Your task to perform on an android device: What's on my calendar tomorrow? Image 0: 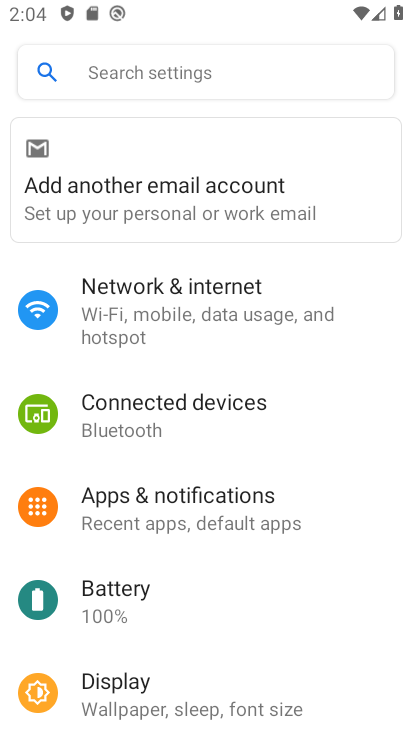
Step 0: press back button
Your task to perform on an android device: What's on my calendar tomorrow? Image 1: 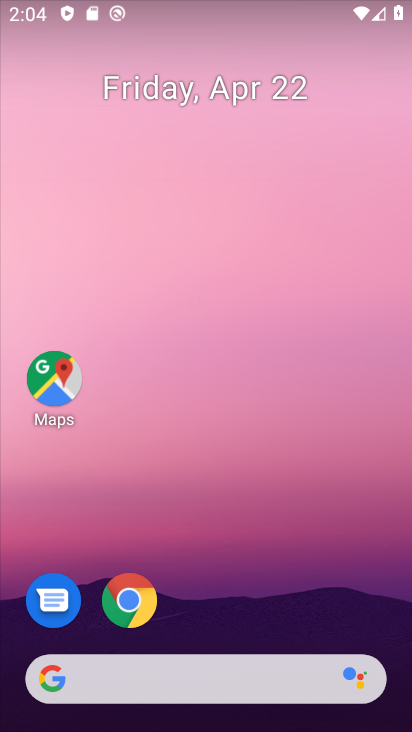
Step 1: drag from (196, 214) to (410, 170)
Your task to perform on an android device: What's on my calendar tomorrow? Image 2: 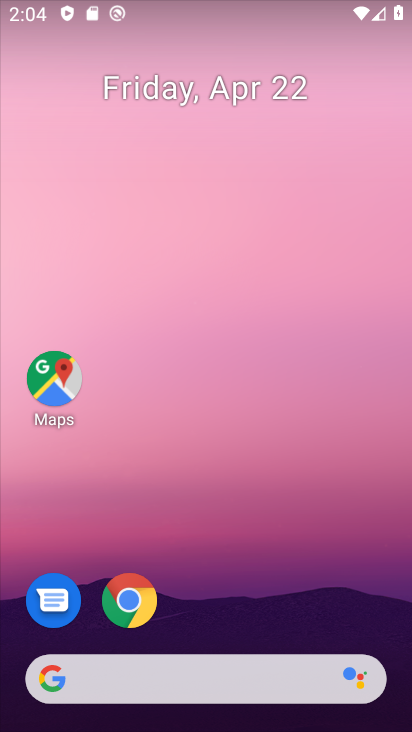
Step 2: drag from (0, 301) to (411, 210)
Your task to perform on an android device: What's on my calendar tomorrow? Image 3: 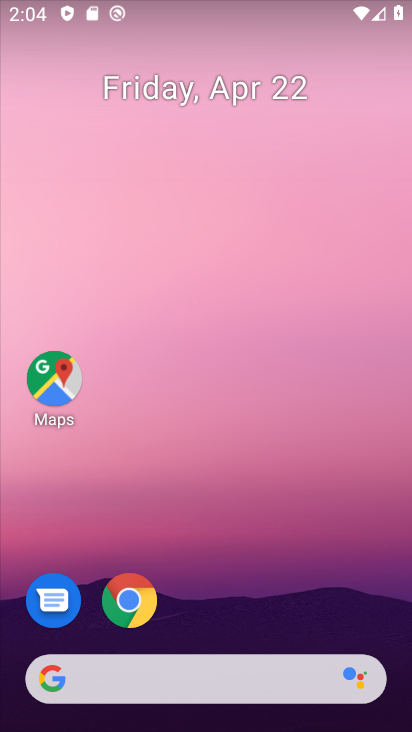
Step 3: drag from (28, 472) to (377, 416)
Your task to perform on an android device: What's on my calendar tomorrow? Image 4: 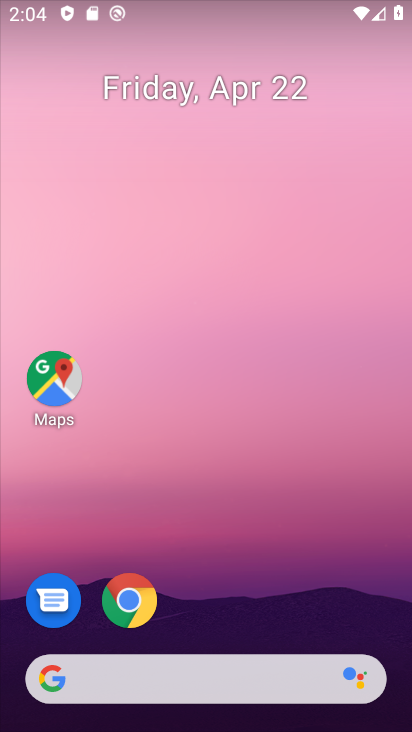
Step 4: drag from (0, 279) to (371, 361)
Your task to perform on an android device: What's on my calendar tomorrow? Image 5: 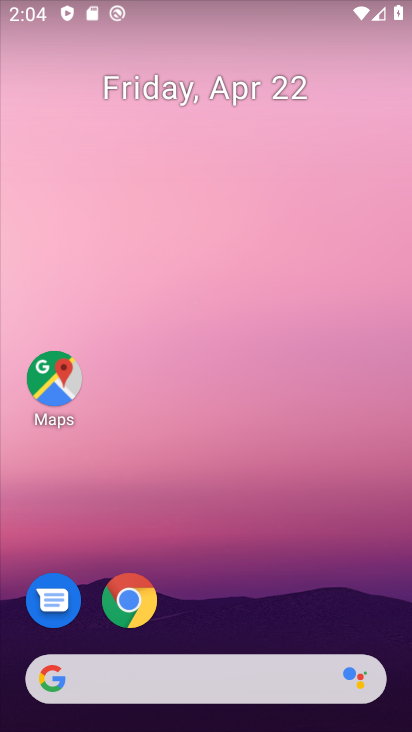
Step 5: drag from (204, 533) to (311, 141)
Your task to perform on an android device: What's on my calendar tomorrow? Image 6: 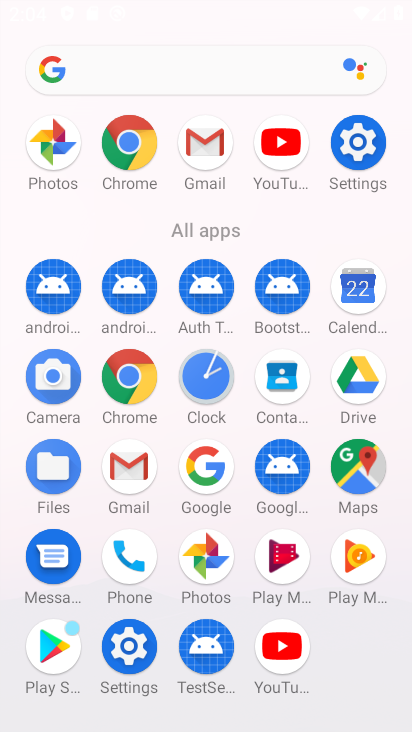
Step 6: click (359, 289)
Your task to perform on an android device: What's on my calendar tomorrow? Image 7: 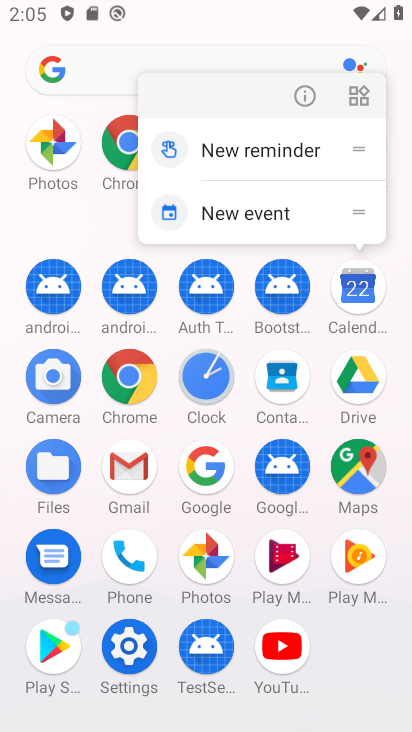
Step 7: click (365, 294)
Your task to perform on an android device: What's on my calendar tomorrow? Image 8: 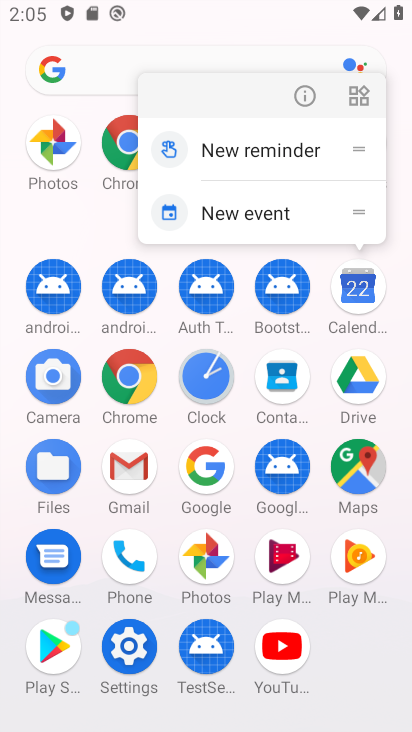
Step 8: click (362, 301)
Your task to perform on an android device: What's on my calendar tomorrow? Image 9: 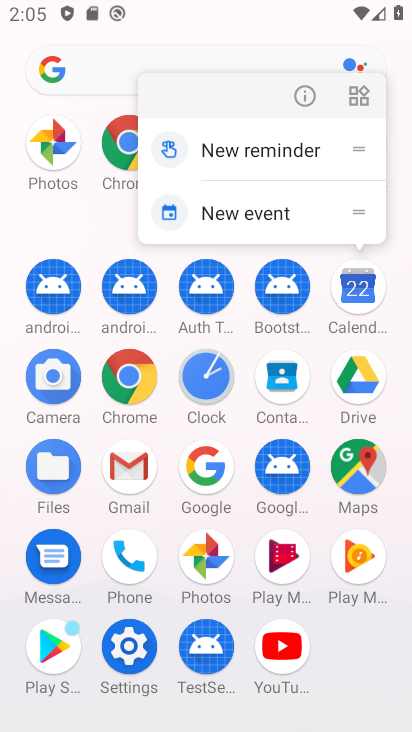
Step 9: click (366, 287)
Your task to perform on an android device: What's on my calendar tomorrow? Image 10: 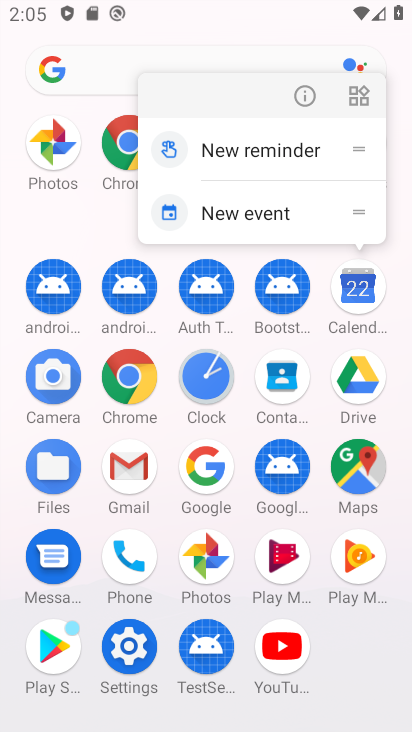
Step 10: click (361, 292)
Your task to perform on an android device: What's on my calendar tomorrow? Image 11: 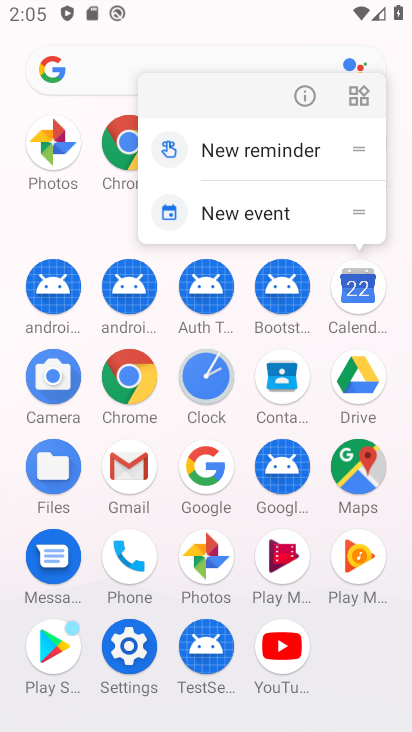
Step 11: click (370, 286)
Your task to perform on an android device: What's on my calendar tomorrow? Image 12: 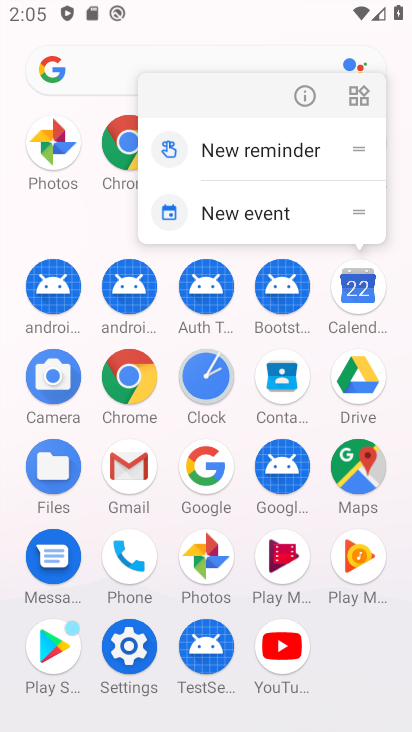
Step 12: click (356, 276)
Your task to perform on an android device: What's on my calendar tomorrow? Image 13: 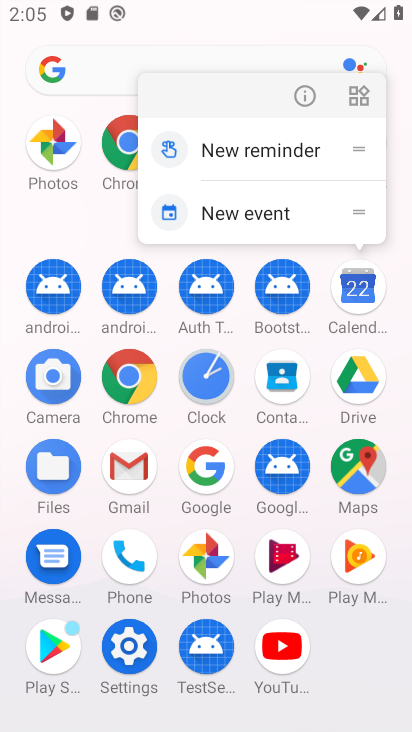
Step 13: click (370, 308)
Your task to perform on an android device: What's on my calendar tomorrow? Image 14: 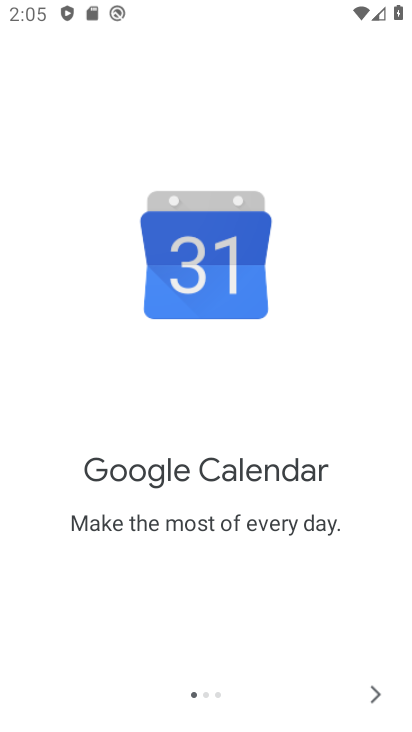
Step 14: click (382, 691)
Your task to perform on an android device: What's on my calendar tomorrow? Image 15: 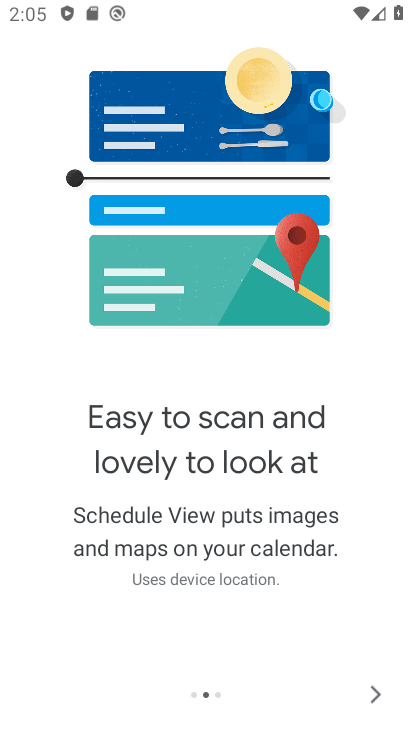
Step 15: click (382, 691)
Your task to perform on an android device: What's on my calendar tomorrow? Image 16: 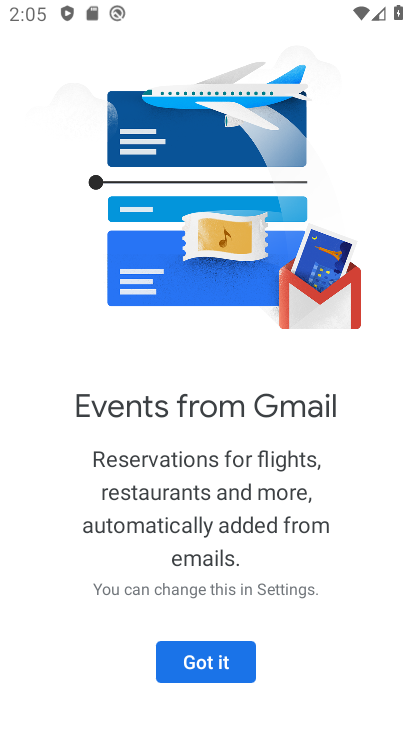
Step 16: click (229, 665)
Your task to perform on an android device: What's on my calendar tomorrow? Image 17: 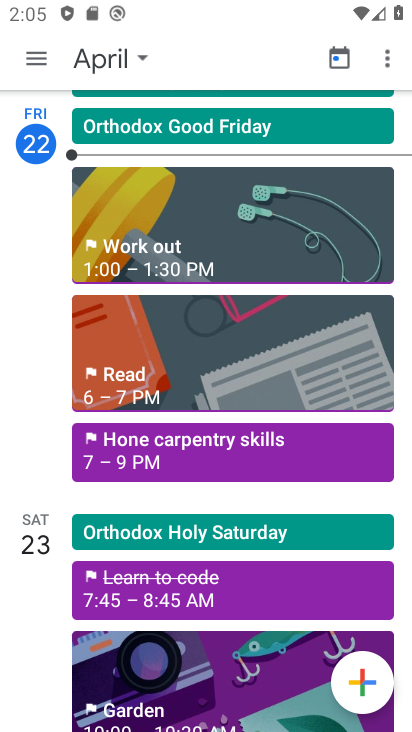
Step 17: task complete